Your task to perform on an android device: Go to Android settings Image 0: 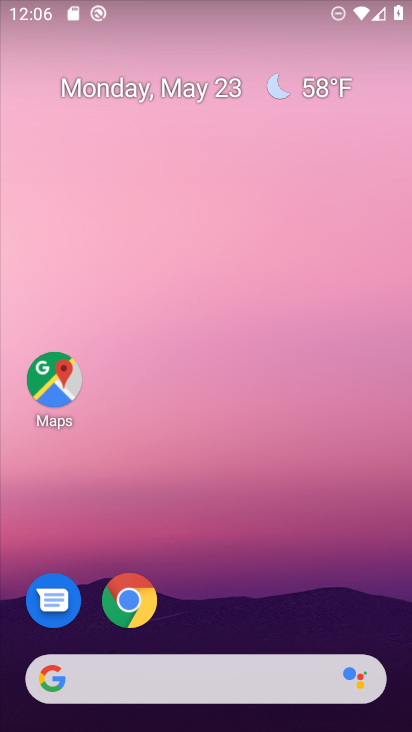
Step 0: drag from (284, 529) to (318, 86)
Your task to perform on an android device: Go to Android settings Image 1: 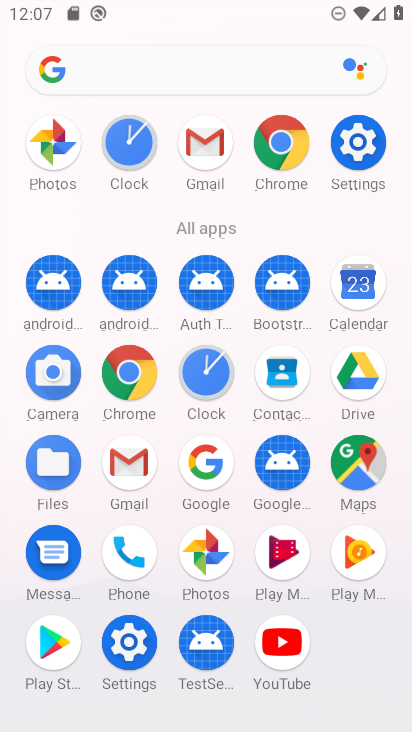
Step 1: click (367, 148)
Your task to perform on an android device: Go to Android settings Image 2: 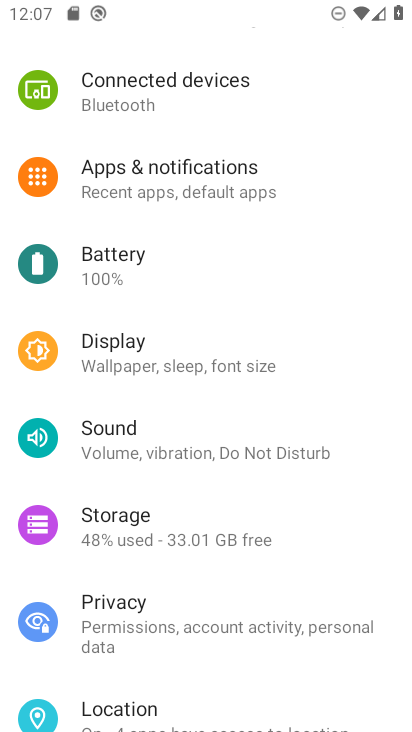
Step 2: task complete